Your task to perform on an android device: remove spam from my inbox in the gmail app Image 0: 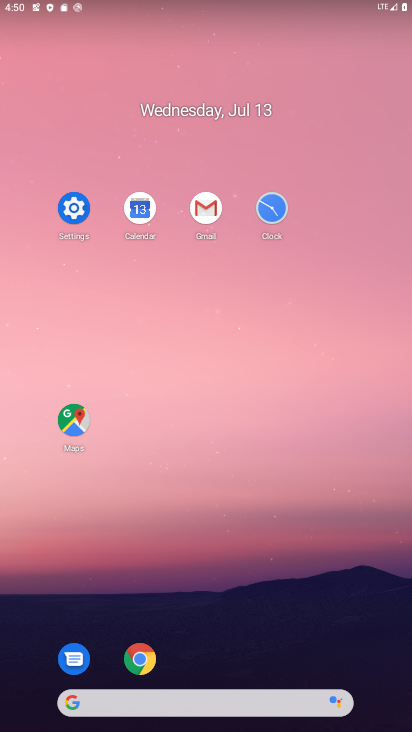
Step 0: click (198, 207)
Your task to perform on an android device: remove spam from my inbox in the gmail app Image 1: 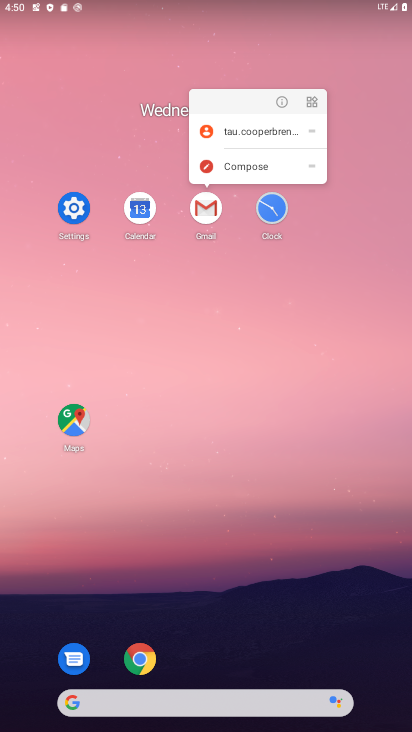
Step 1: click (198, 207)
Your task to perform on an android device: remove spam from my inbox in the gmail app Image 2: 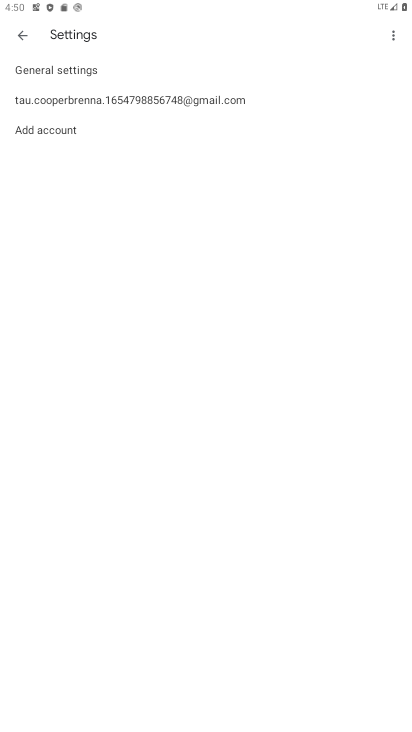
Step 2: click (47, 32)
Your task to perform on an android device: remove spam from my inbox in the gmail app Image 3: 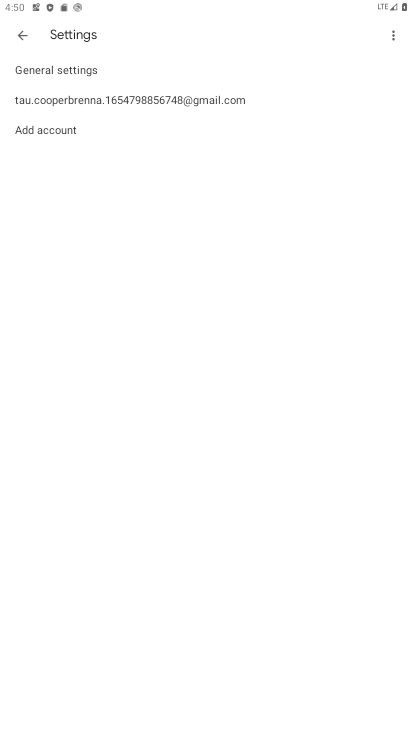
Step 3: click (28, 30)
Your task to perform on an android device: remove spam from my inbox in the gmail app Image 4: 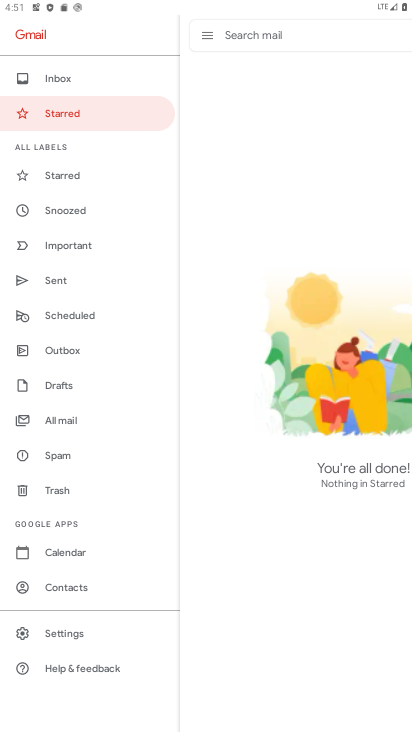
Step 4: click (80, 456)
Your task to perform on an android device: remove spam from my inbox in the gmail app Image 5: 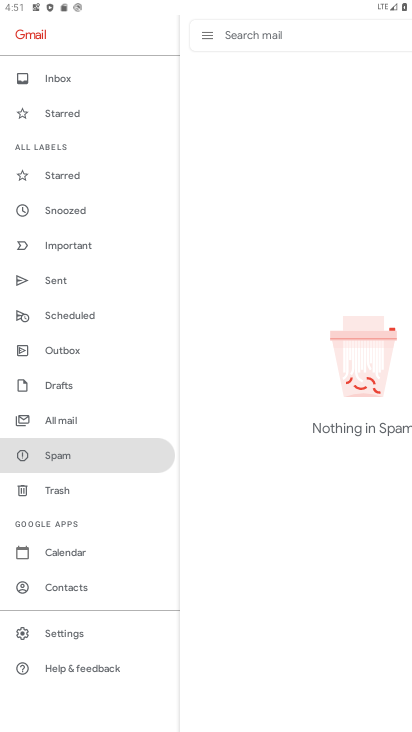
Step 5: task complete